Your task to perform on an android device: Show me the alarms in the clock app Image 0: 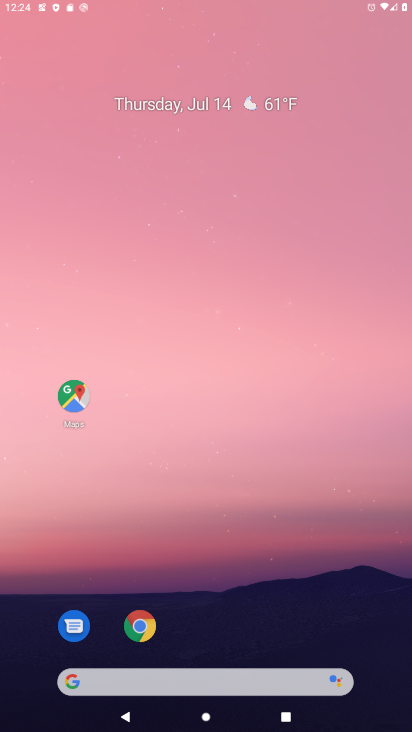
Step 0: click (174, 139)
Your task to perform on an android device: Show me the alarms in the clock app Image 1: 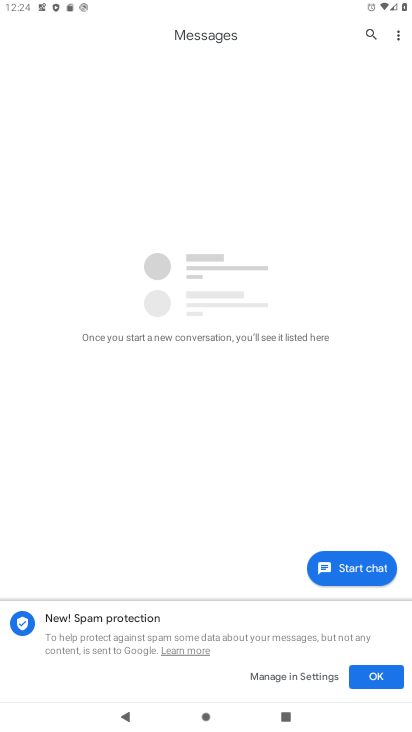
Step 1: press home button
Your task to perform on an android device: Show me the alarms in the clock app Image 2: 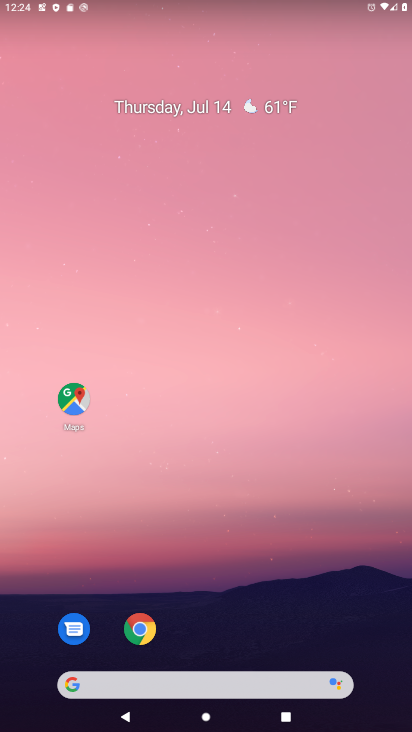
Step 2: drag from (233, 599) to (220, 63)
Your task to perform on an android device: Show me the alarms in the clock app Image 3: 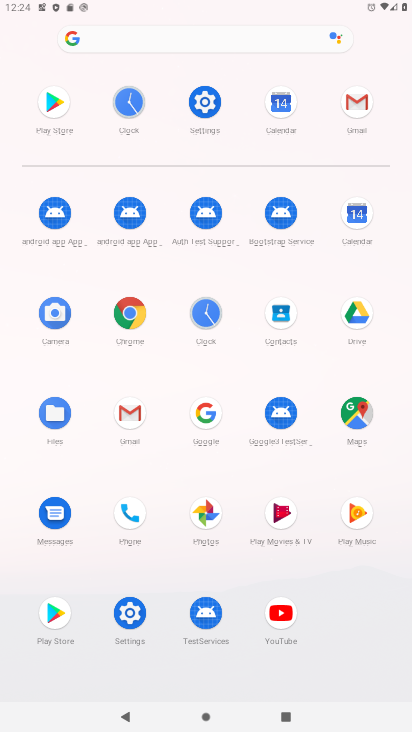
Step 3: click (208, 318)
Your task to perform on an android device: Show me the alarms in the clock app Image 4: 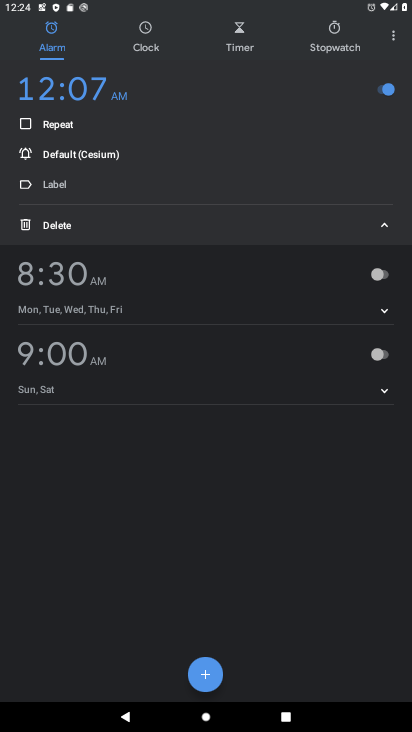
Step 4: task complete